Your task to perform on an android device: empty trash in google photos Image 0: 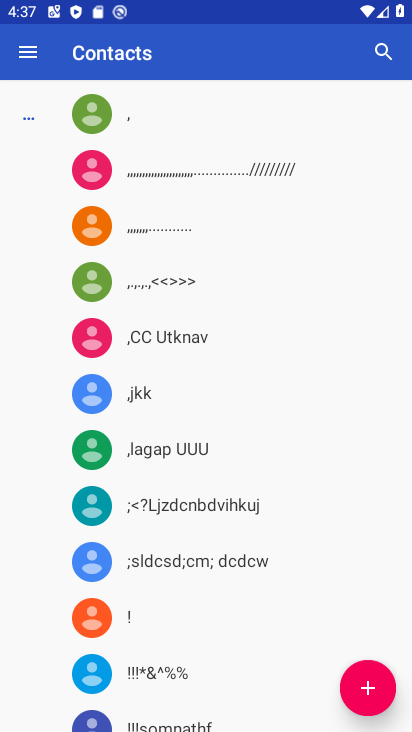
Step 0: press home button
Your task to perform on an android device: empty trash in google photos Image 1: 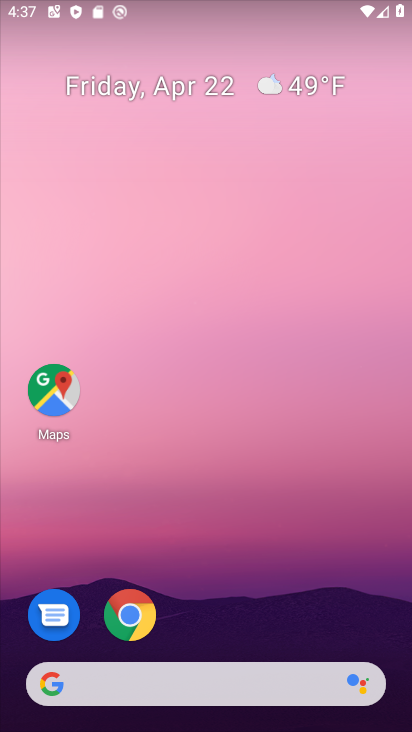
Step 1: drag from (224, 618) to (229, 248)
Your task to perform on an android device: empty trash in google photos Image 2: 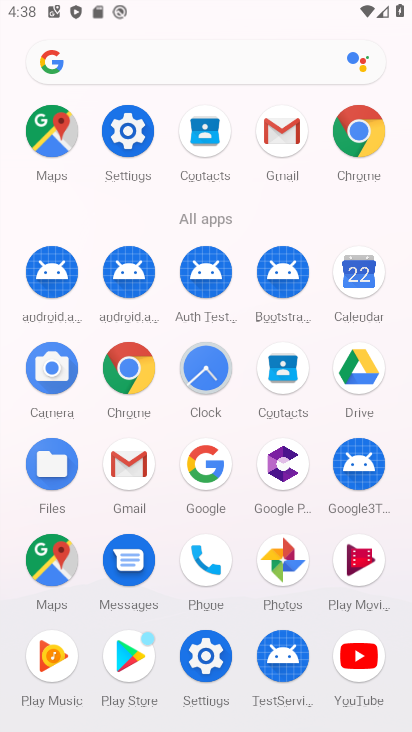
Step 2: click (272, 549)
Your task to perform on an android device: empty trash in google photos Image 3: 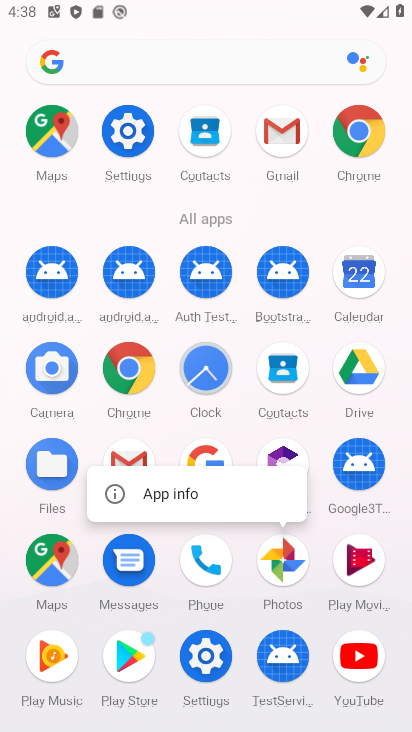
Step 3: click (298, 560)
Your task to perform on an android device: empty trash in google photos Image 4: 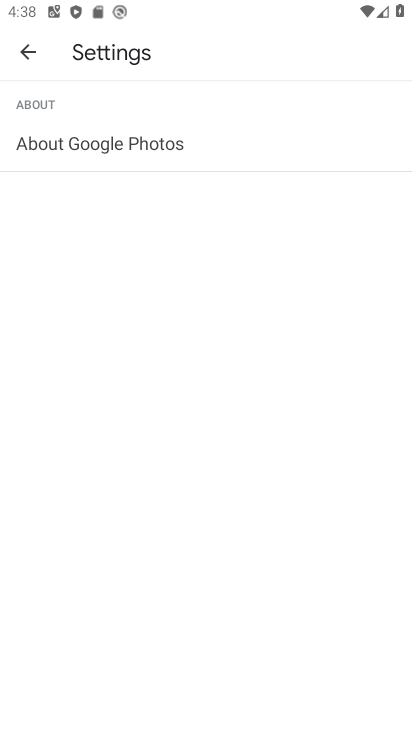
Step 4: click (23, 57)
Your task to perform on an android device: empty trash in google photos Image 5: 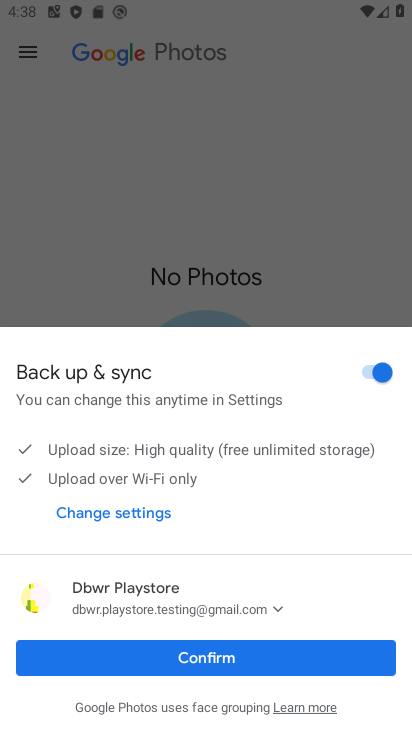
Step 5: click (218, 658)
Your task to perform on an android device: empty trash in google photos Image 6: 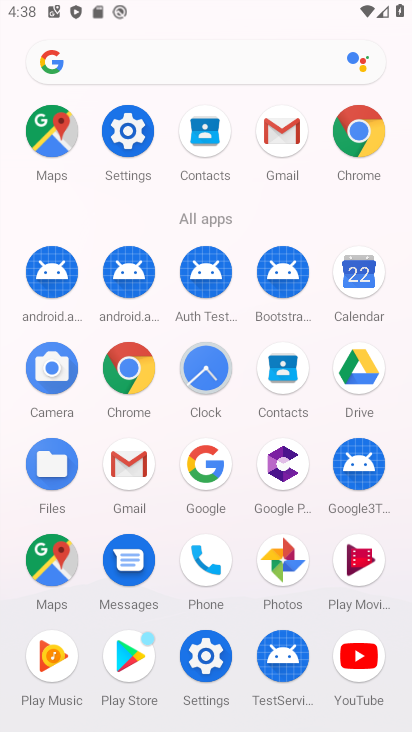
Step 6: click (294, 550)
Your task to perform on an android device: empty trash in google photos Image 7: 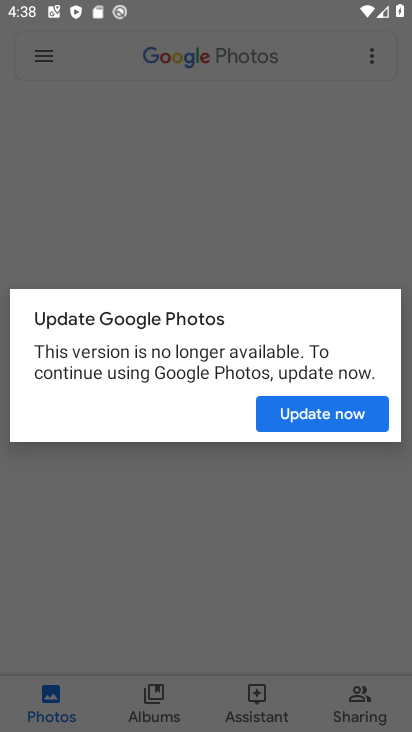
Step 7: click (309, 406)
Your task to perform on an android device: empty trash in google photos Image 8: 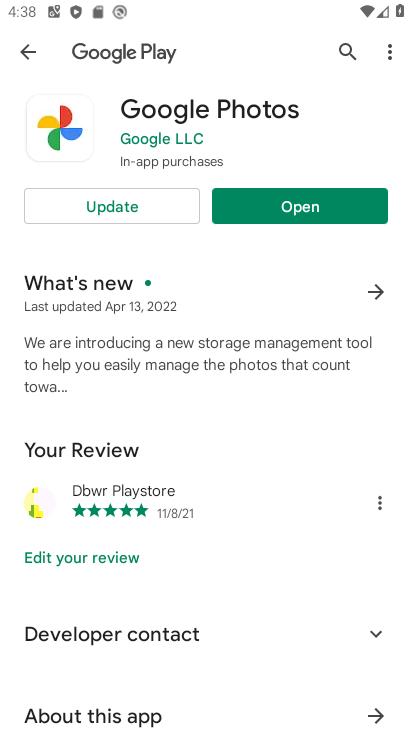
Step 8: click (264, 213)
Your task to perform on an android device: empty trash in google photos Image 9: 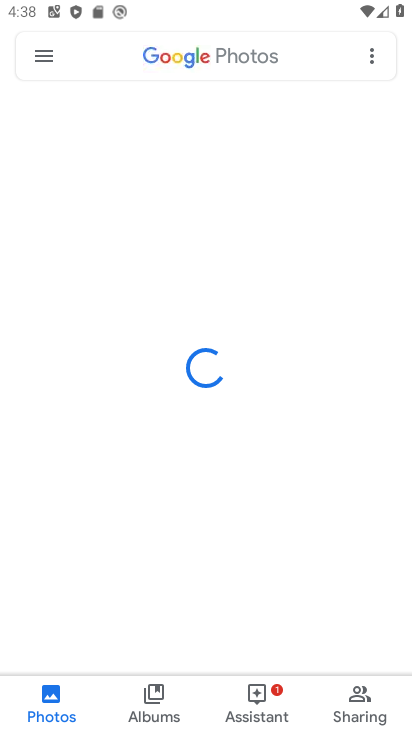
Step 9: click (38, 55)
Your task to perform on an android device: empty trash in google photos Image 10: 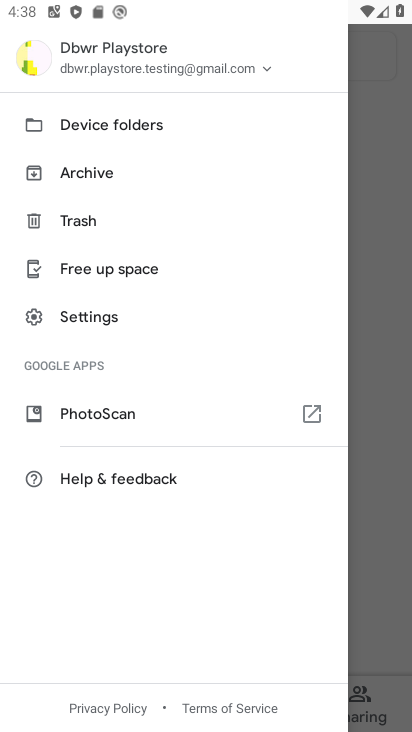
Step 10: click (63, 223)
Your task to perform on an android device: empty trash in google photos Image 11: 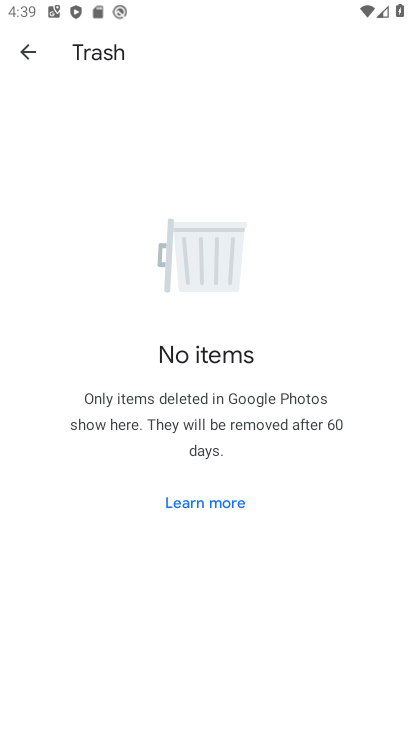
Step 11: task complete